Your task to perform on an android device: Open Android settings Image 0: 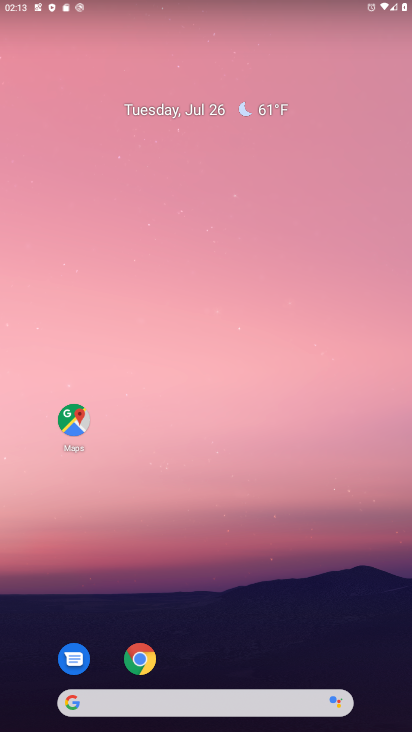
Step 0: drag from (217, 664) to (169, 127)
Your task to perform on an android device: Open Android settings Image 1: 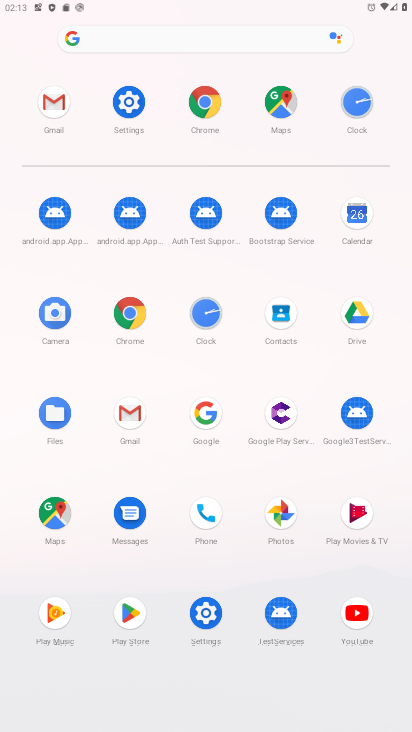
Step 1: click (121, 110)
Your task to perform on an android device: Open Android settings Image 2: 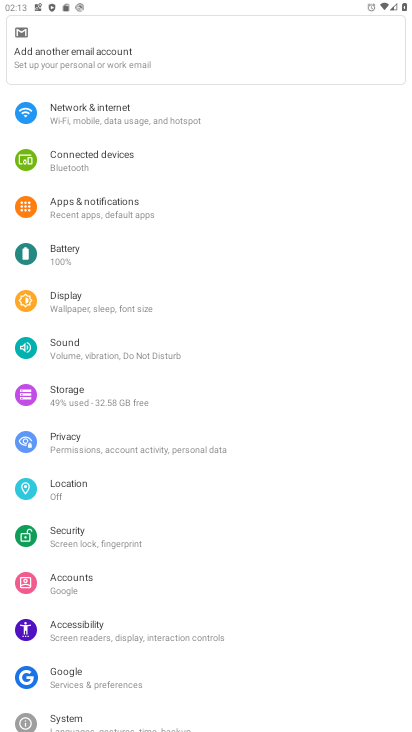
Step 2: task complete